Your task to perform on an android device: open device folders in google photos Image 0: 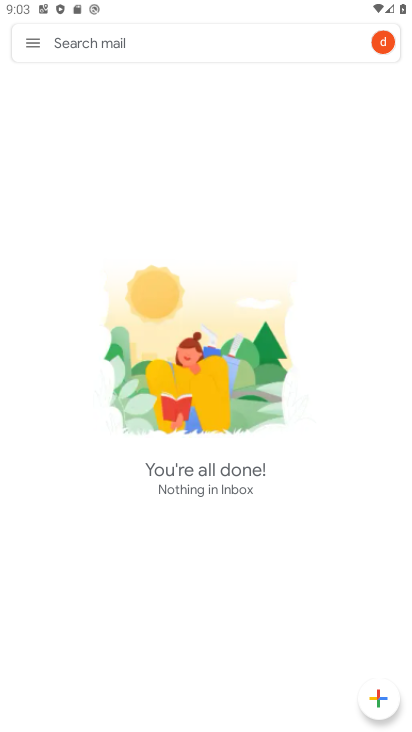
Step 0: press home button
Your task to perform on an android device: open device folders in google photos Image 1: 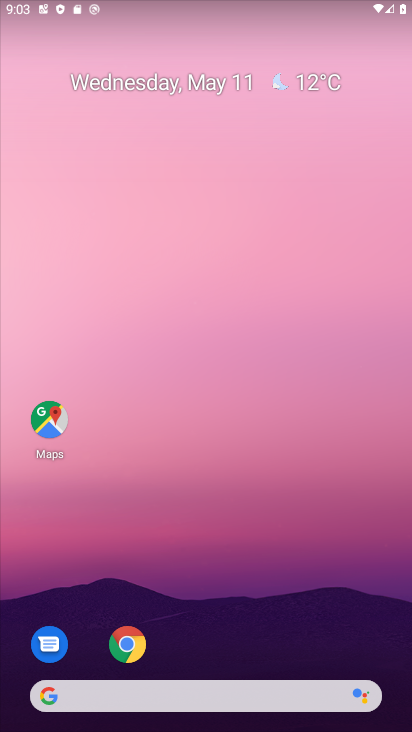
Step 1: drag from (236, 618) to (130, 82)
Your task to perform on an android device: open device folders in google photos Image 2: 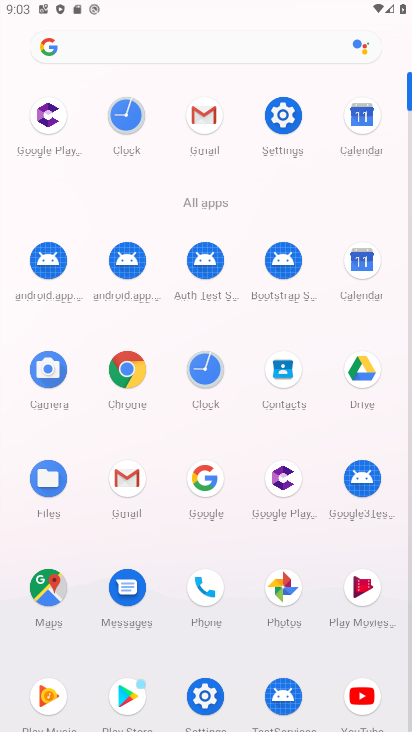
Step 2: click (288, 586)
Your task to perform on an android device: open device folders in google photos Image 3: 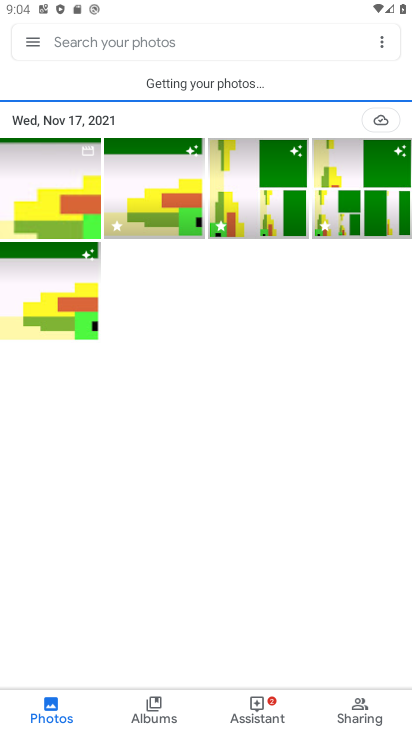
Step 3: click (33, 46)
Your task to perform on an android device: open device folders in google photos Image 4: 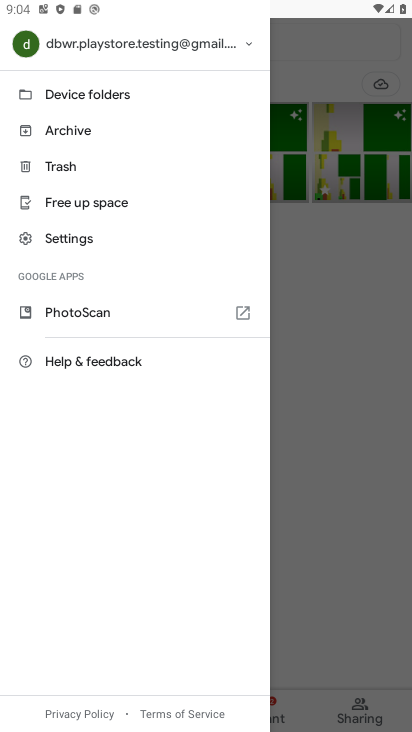
Step 4: click (54, 95)
Your task to perform on an android device: open device folders in google photos Image 5: 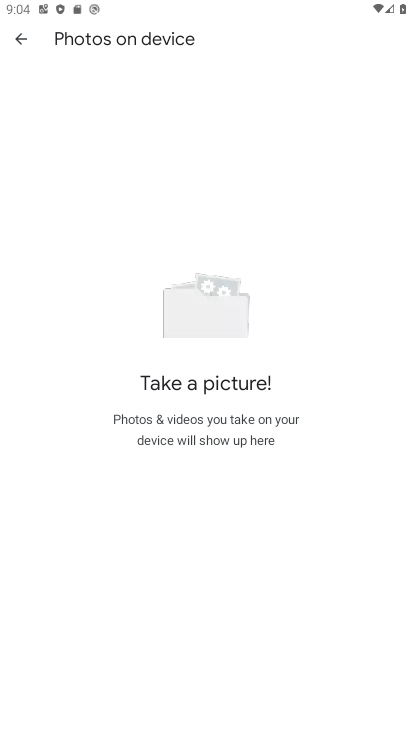
Step 5: task complete